Your task to perform on an android device: delete browsing data in the chrome app Image 0: 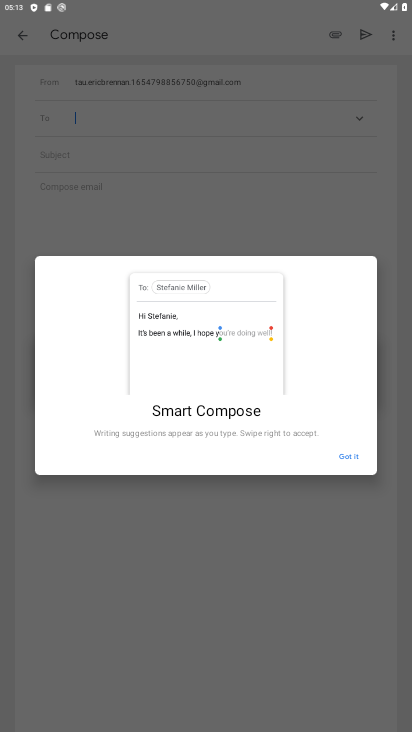
Step 0: press home button
Your task to perform on an android device: delete browsing data in the chrome app Image 1: 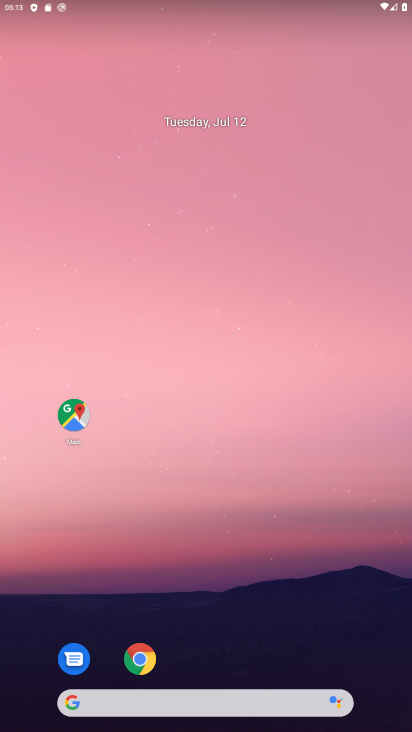
Step 1: click (141, 658)
Your task to perform on an android device: delete browsing data in the chrome app Image 2: 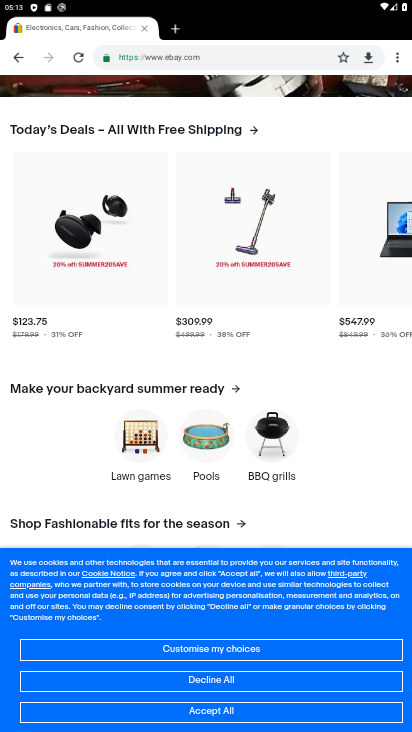
Step 2: click (396, 61)
Your task to perform on an android device: delete browsing data in the chrome app Image 3: 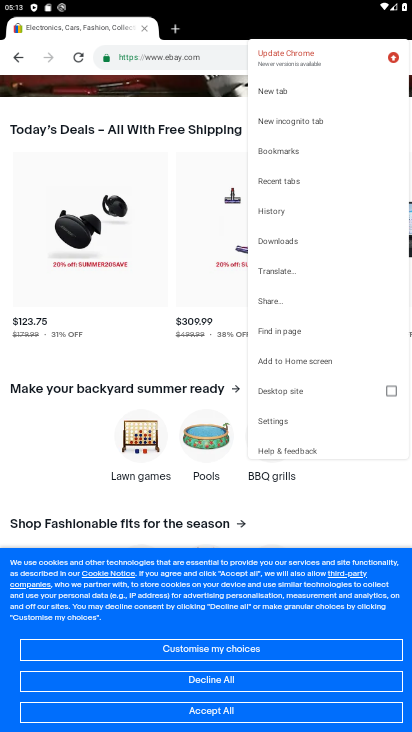
Step 3: click (270, 209)
Your task to perform on an android device: delete browsing data in the chrome app Image 4: 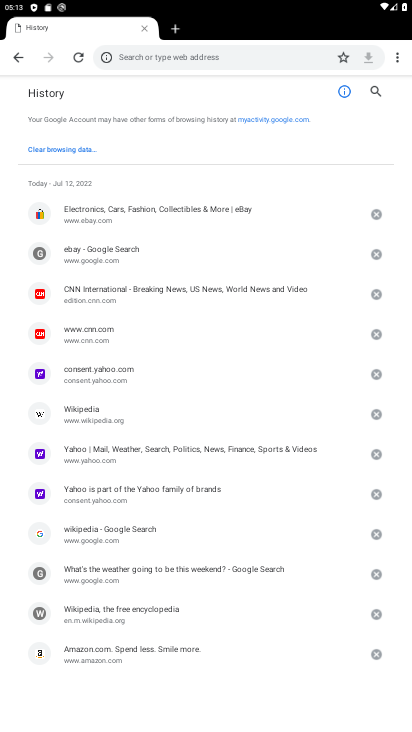
Step 4: click (50, 145)
Your task to perform on an android device: delete browsing data in the chrome app Image 5: 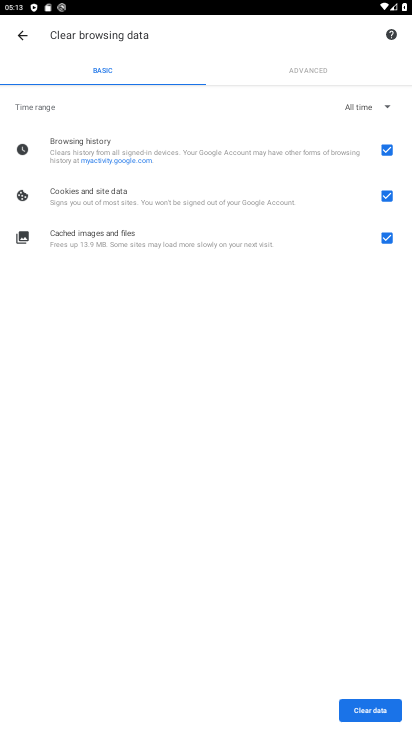
Step 5: click (383, 192)
Your task to perform on an android device: delete browsing data in the chrome app Image 6: 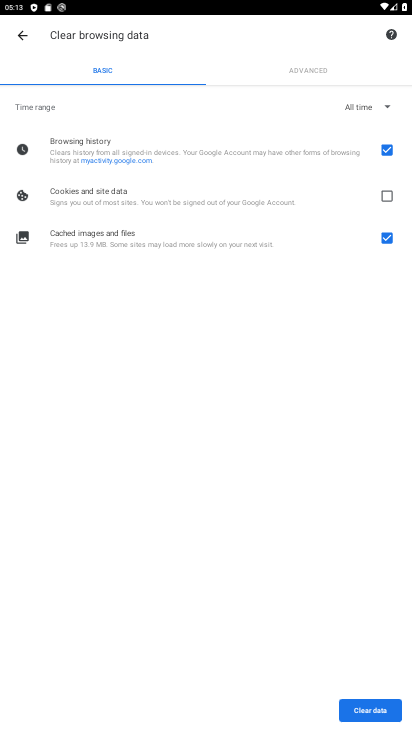
Step 6: click (386, 236)
Your task to perform on an android device: delete browsing data in the chrome app Image 7: 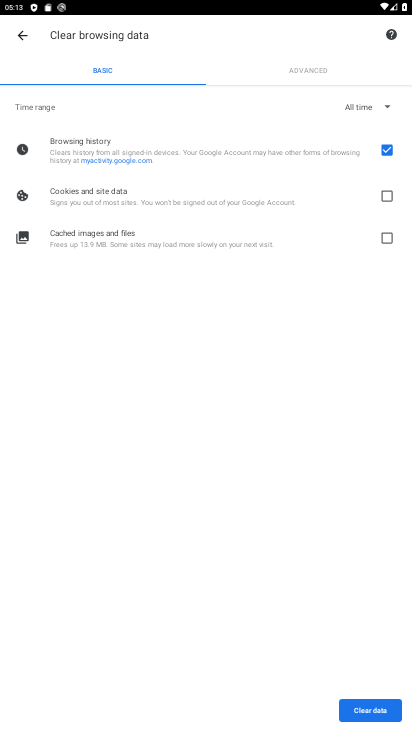
Step 7: click (371, 714)
Your task to perform on an android device: delete browsing data in the chrome app Image 8: 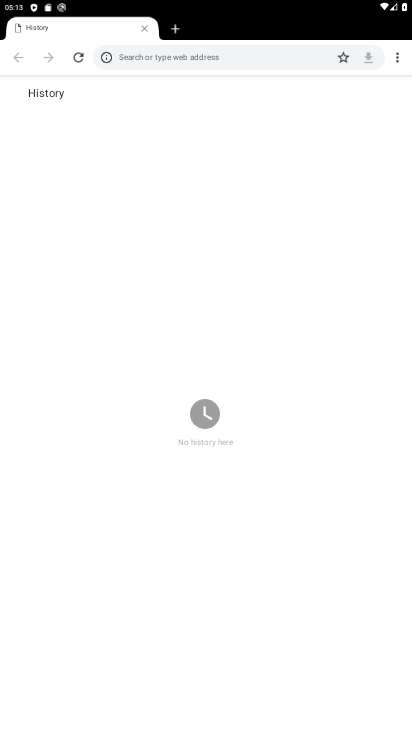
Step 8: task complete